Your task to perform on an android device: Go to sound settings Image 0: 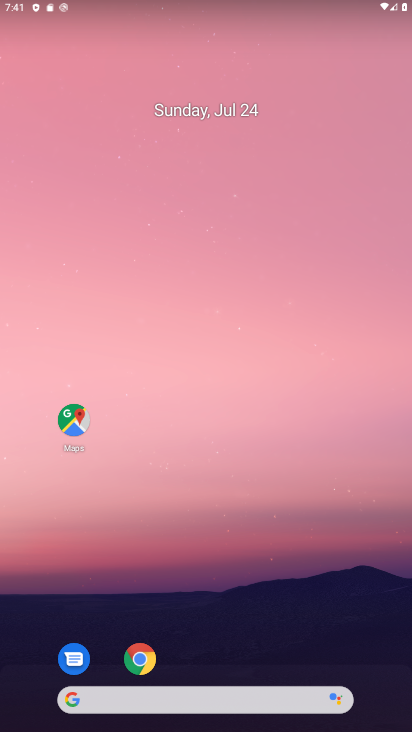
Step 0: click (273, 46)
Your task to perform on an android device: Go to sound settings Image 1: 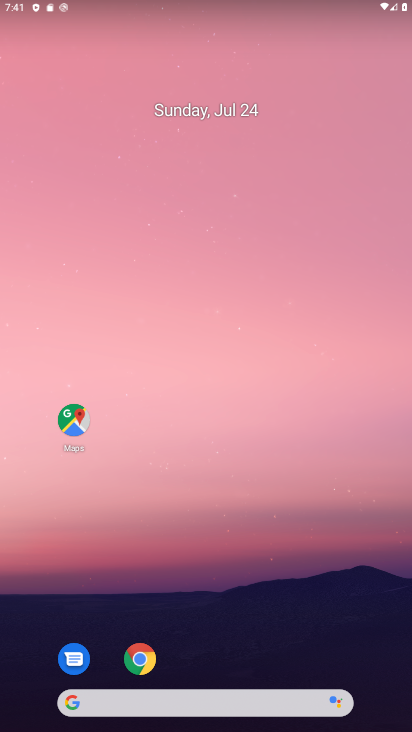
Step 1: task complete